Your task to perform on an android device: Open Maps and search for coffee Image 0: 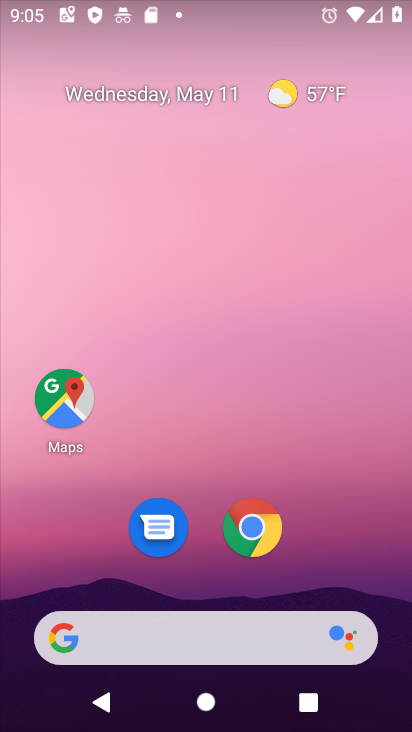
Step 0: click (67, 407)
Your task to perform on an android device: Open Maps and search for coffee Image 1: 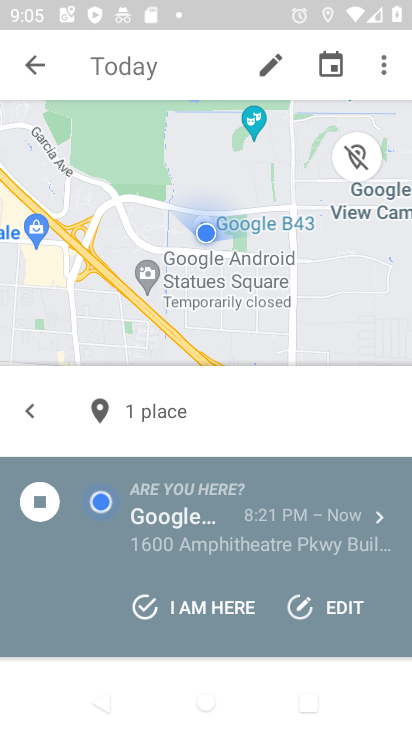
Step 1: click (28, 68)
Your task to perform on an android device: Open Maps and search for coffee Image 2: 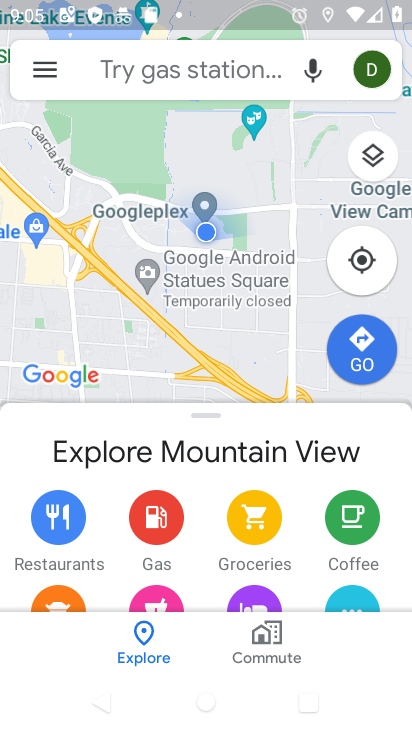
Step 2: click (141, 76)
Your task to perform on an android device: Open Maps and search for coffee Image 3: 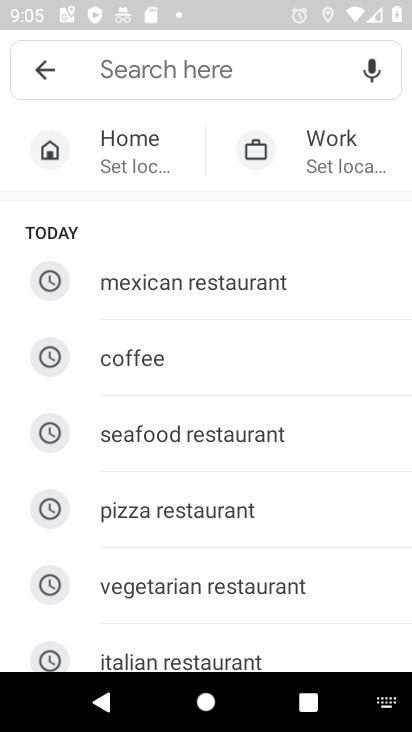
Step 3: type "coffee"
Your task to perform on an android device: Open Maps and search for coffee Image 4: 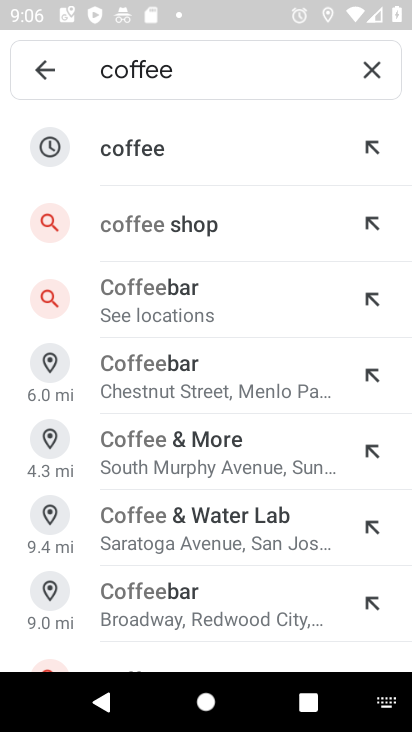
Step 4: click (110, 154)
Your task to perform on an android device: Open Maps and search for coffee Image 5: 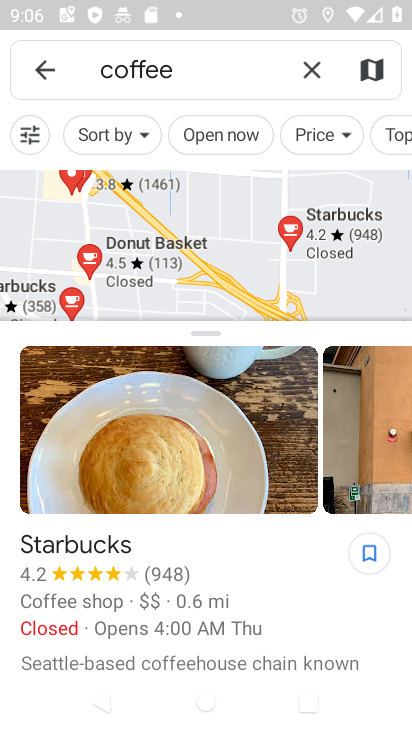
Step 5: task complete